Your task to perform on an android device: Go to ESPN.com Image 0: 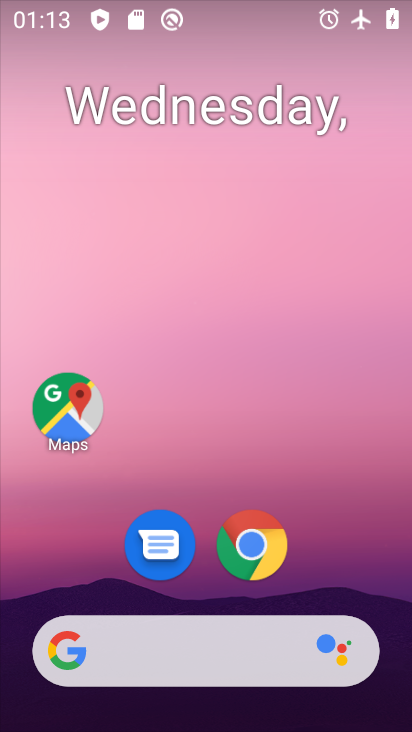
Step 0: drag from (373, 519) to (293, 156)
Your task to perform on an android device: Go to ESPN.com Image 1: 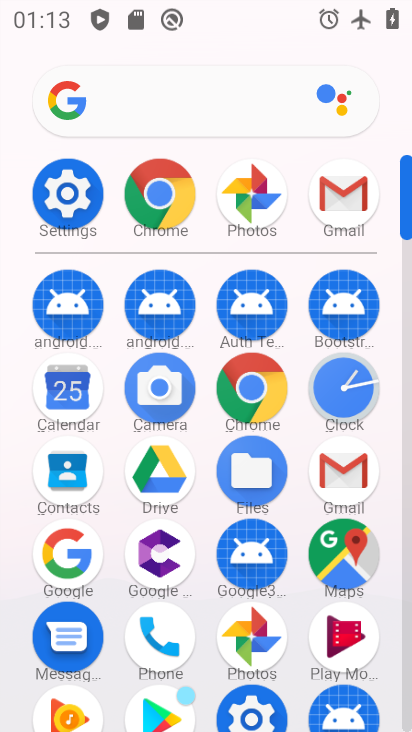
Step 1: click (155, 203)
Your task to perform on an android device: Go to ESPN.com Image 2: 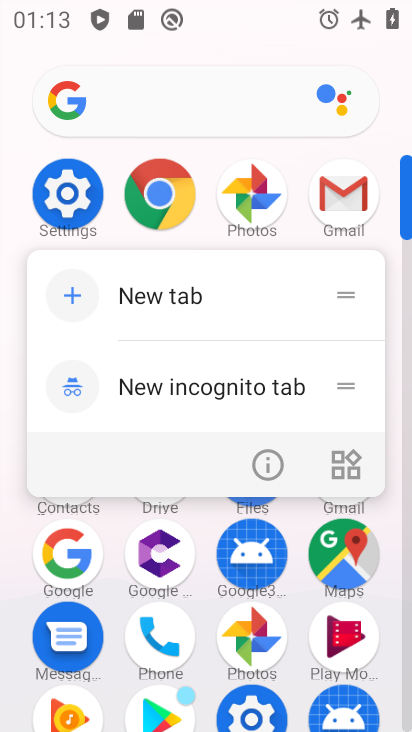
Step 2: click (158, 196)
Your task to perform on an android device: Go to ESPN.com Image 3: 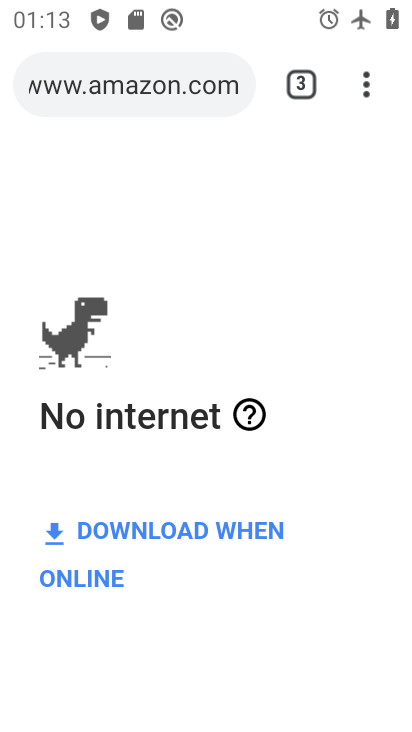
Step 3: click (165, 101)
Your task to perform on an android device: Go to ESPN.com Image 4: 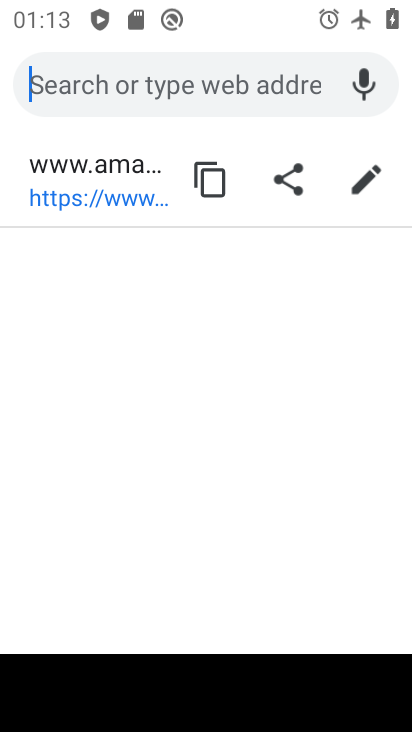
Step 4: type "espn.com"
Your task to perform on an android device: Go to ESPN.com Image 5: 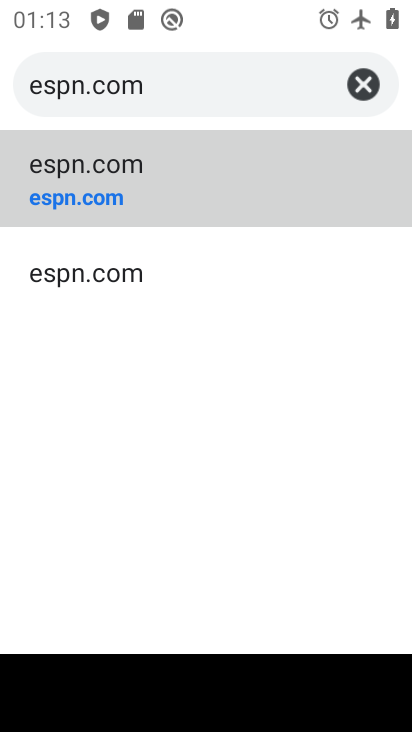
Step 5: click (44, 193)
Your task to perform on an android device: Go to ESPN.com Image 6: 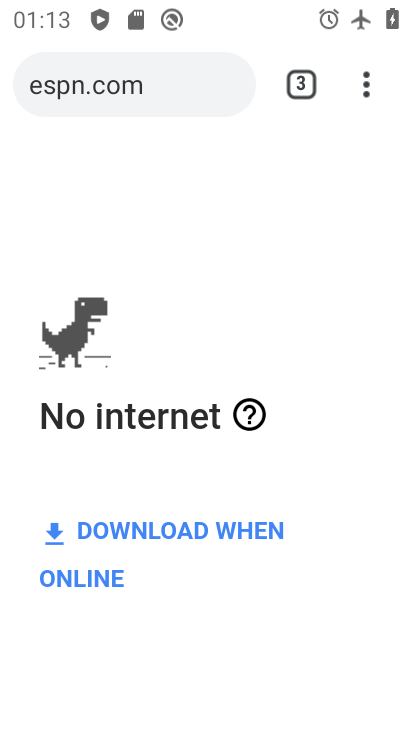
Step 6: task complete